Your task to perform on an android device: Show me the best rated 42 inch TV on Walmart. Image 0: 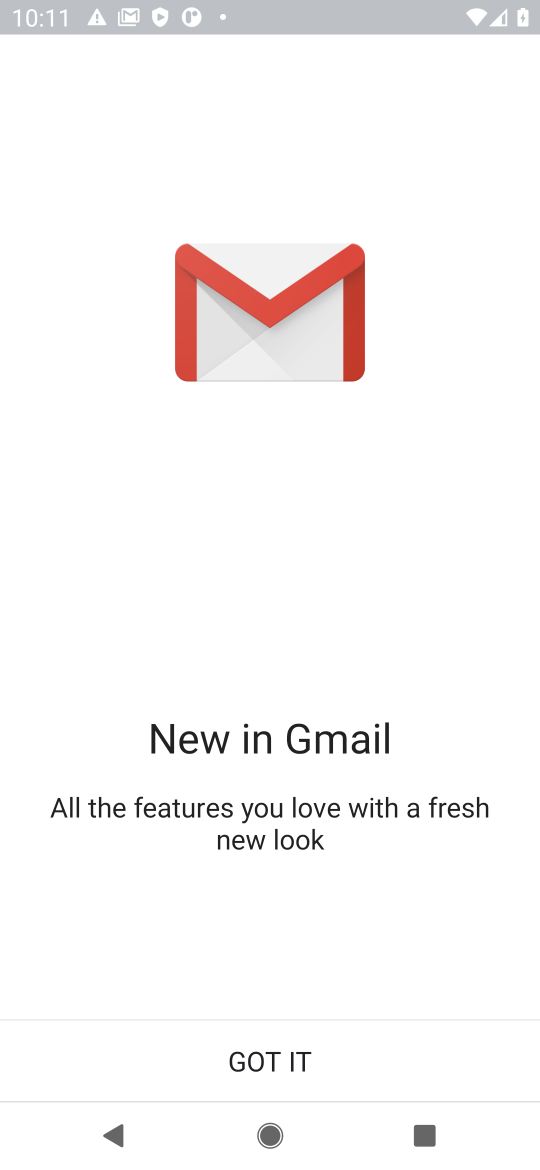
Step 0: press home button
Your task to perform on an android device: Show me the best rated 42 inch TV on Walmart. Image 1: 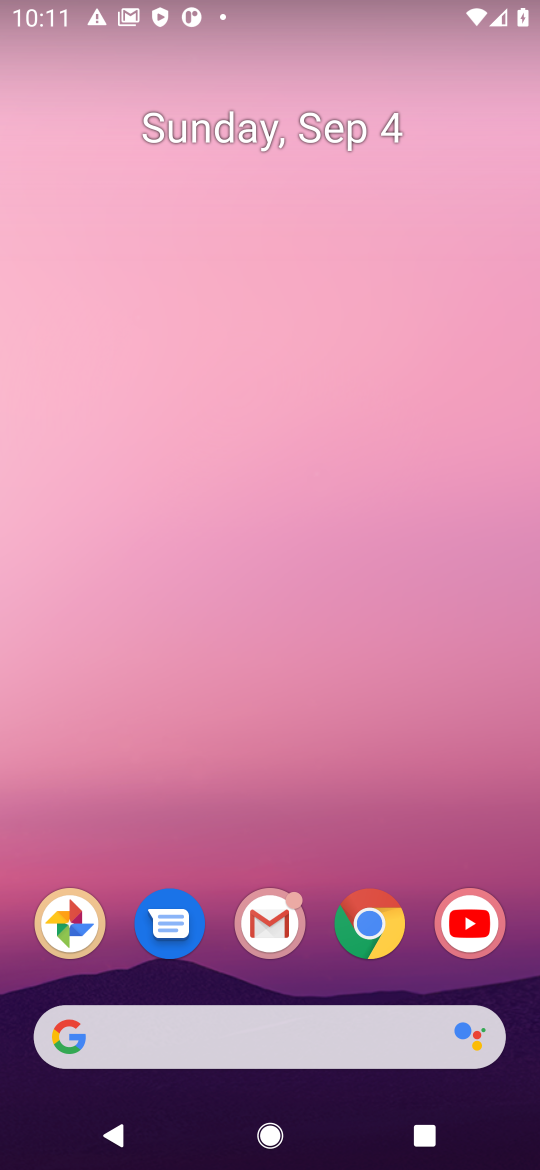
Step 1: click (398, 1039)
Your task to perform on an android device: Show me the best rated 42 inch TV on Walmart. Image 2: 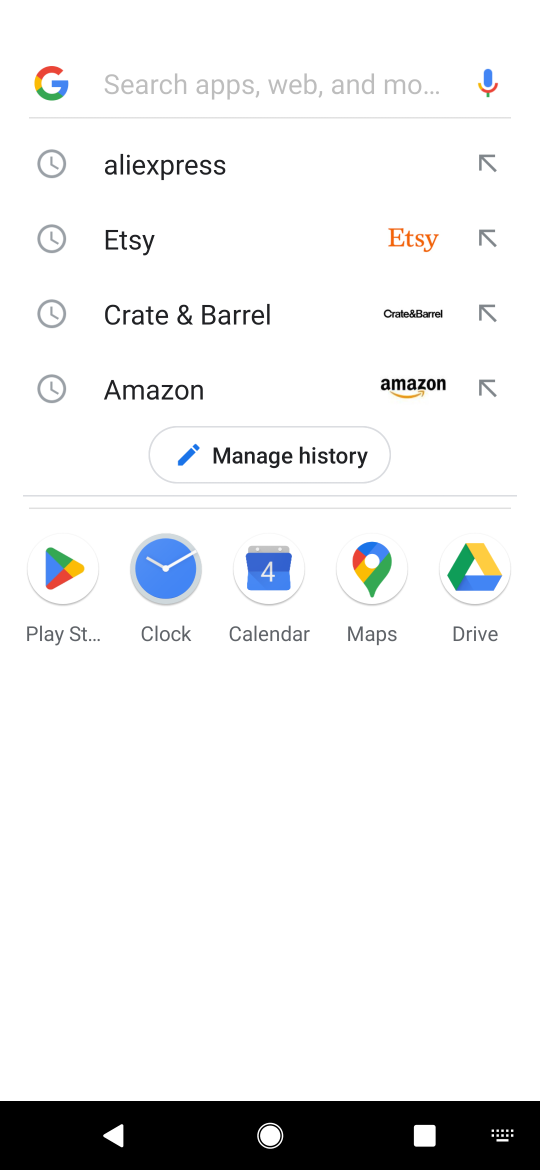
Step 2: press enter
Your task to perform on an android device: Show me the best rated 42 inch TV on Walmart. Image 3: 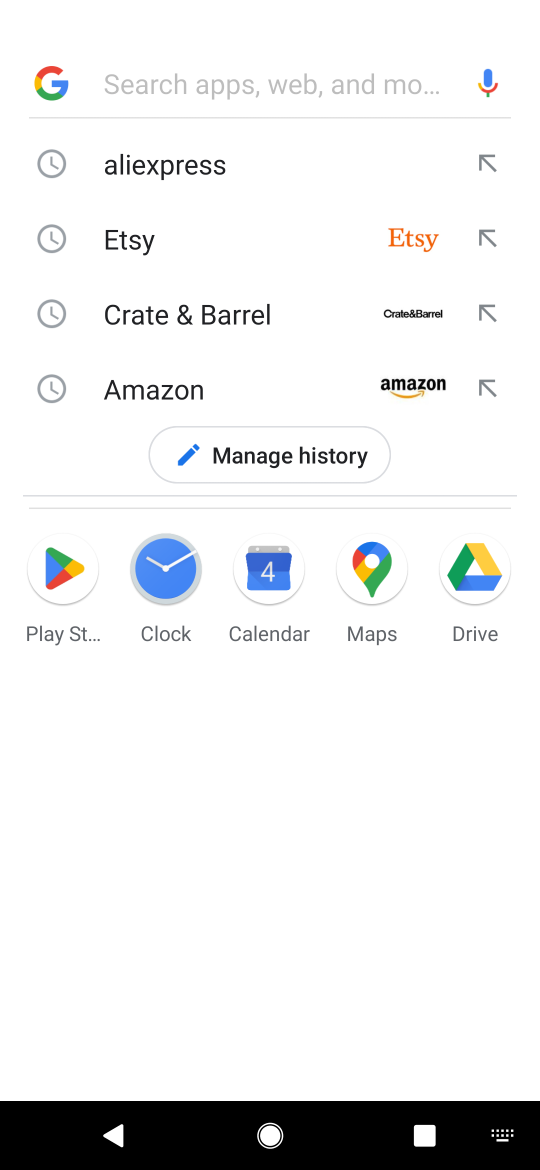
Step 3: type "walmart"
Your task to perform on an android device: Show me the best rated 42 inch TV on Walmart. Image 4: 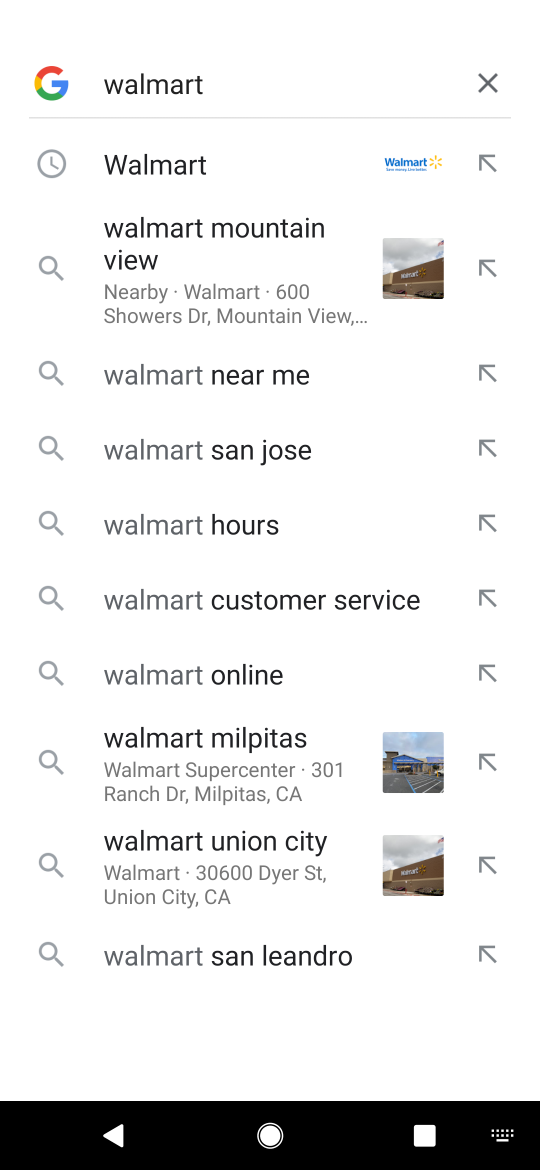
Step 4: click (258, 176)
Your task to perform on an android device: Show me the best rated 42 inch TV on Walmart. Image 5: 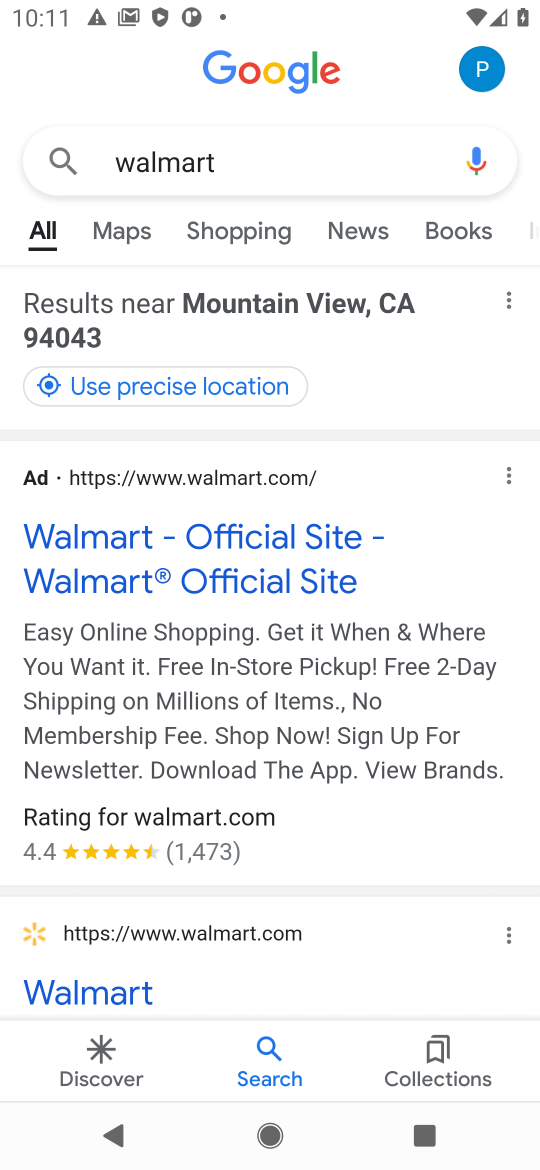
Step 5: click (245, 579)
Your task to perform on an android device: Show me the best rated 42 inch TV on Walmart. Image 6: 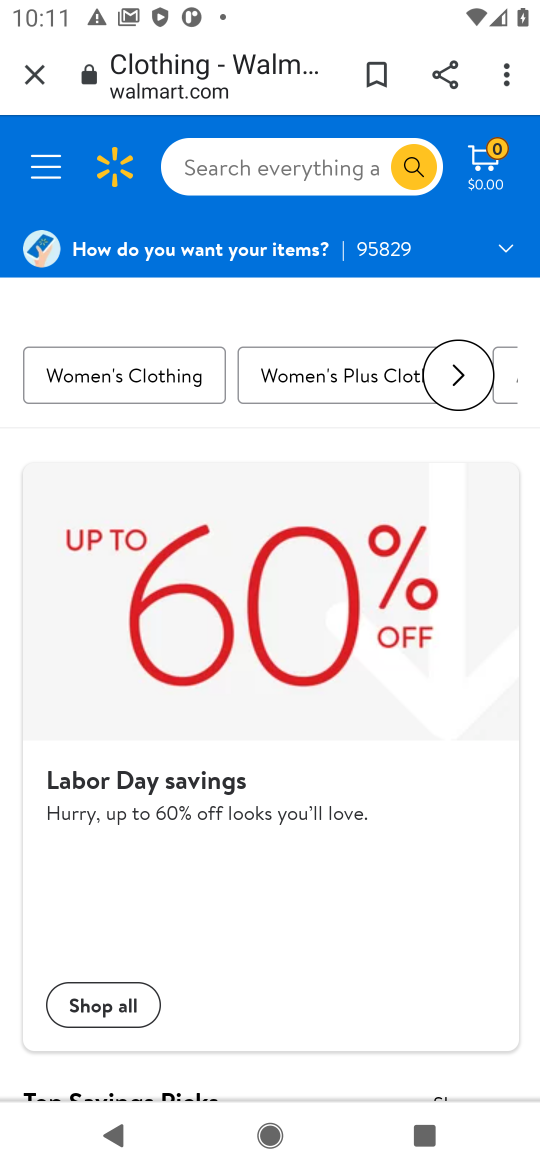
Step 6: click (327, 164)
Your task to perform on an android device: Show me the best rated 42 inch TV on Walmart. Image 7: 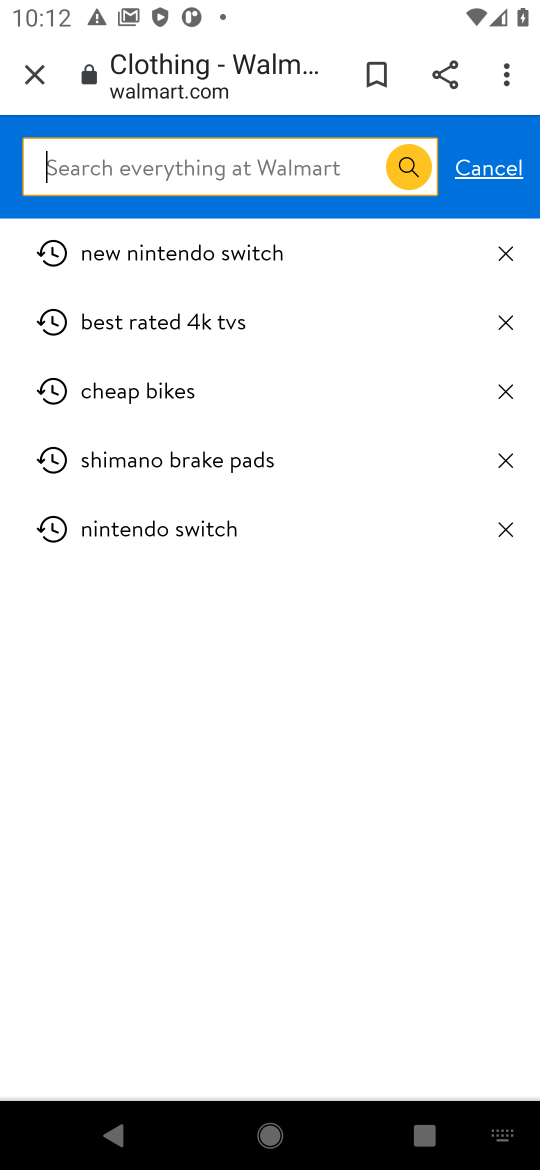
Step 7: type "42 inch tv"
Your task to perform on an android device: Show me the best rated 42 inch TV on Walmart. Image 8: 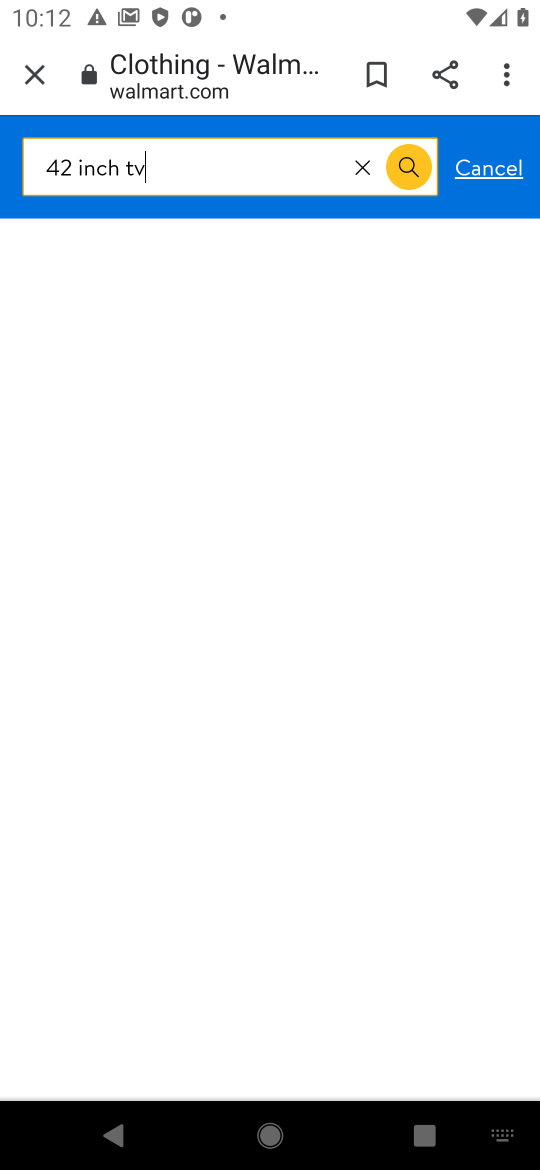
Step 8: press enter
Your task to perform on an android device: Show me the best rated 42 inch TV on Walmart. Image 9: 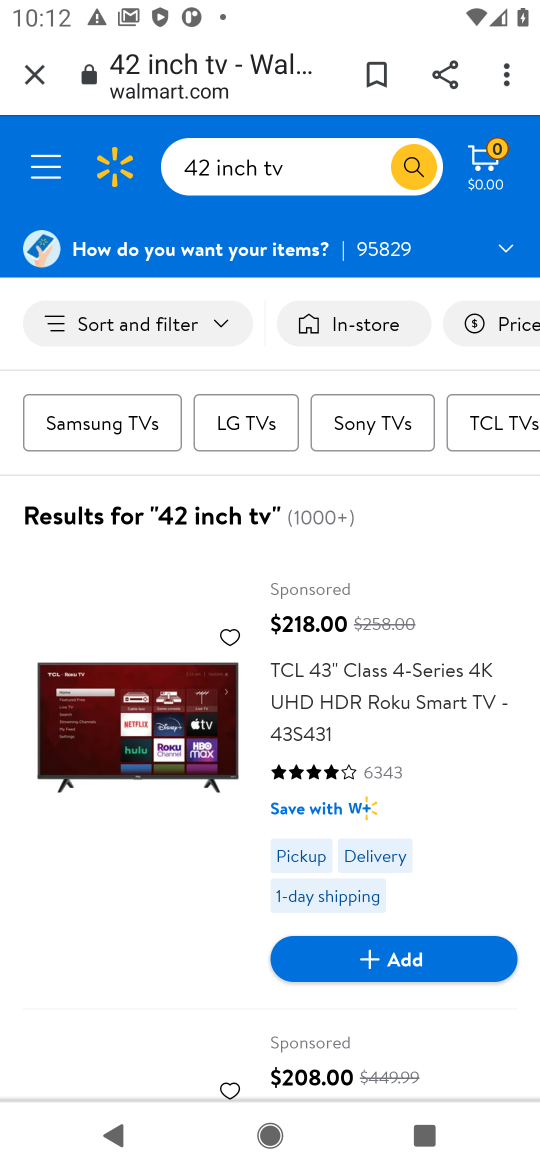
Step 9: task complete